Your task to perform on an android device: Go to display settings Image 0: 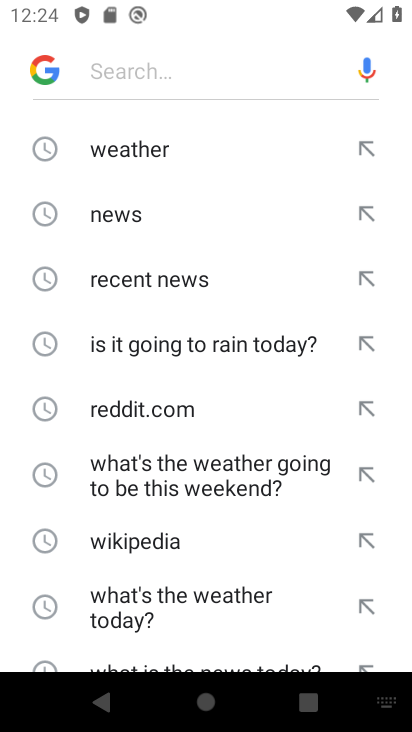
Step 0: press home button
Your task to perform on an android device: Go to display settings Image 1: 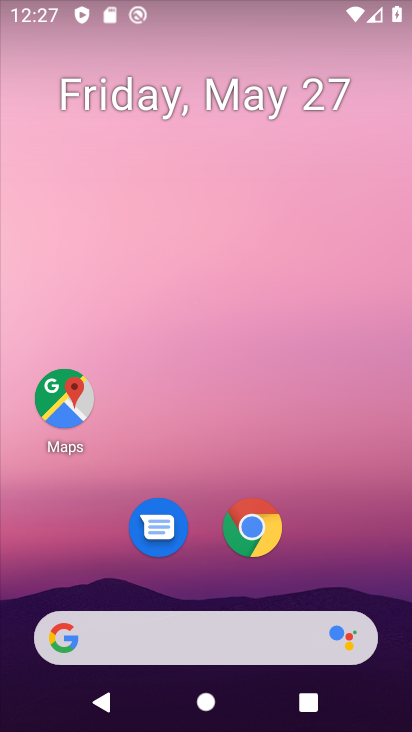
Step 1: drag from (264, 506) to (297, 81)
Your task to perform on an android device: Go to display settings Image 2: 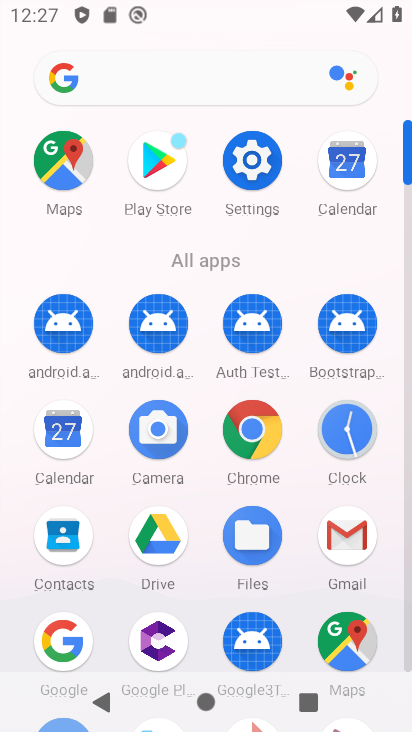
Step 2: click (267, 186)
Your task to perform on an android device: Go to display settings Image 3: 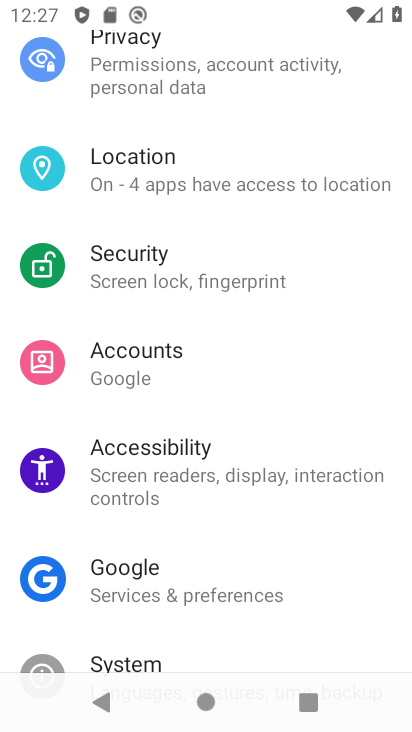
Step 3: drag from (276, 577) to (238, 119)
Your task to perform on an android device: Go to display settings Image 4: 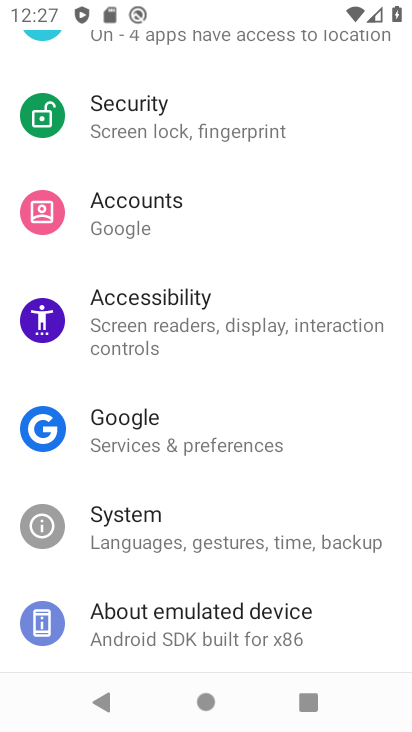
Step 4: drag from (249, 564) to (225, 178)
Your task to perform on an android device: Go to display settings Image 5: 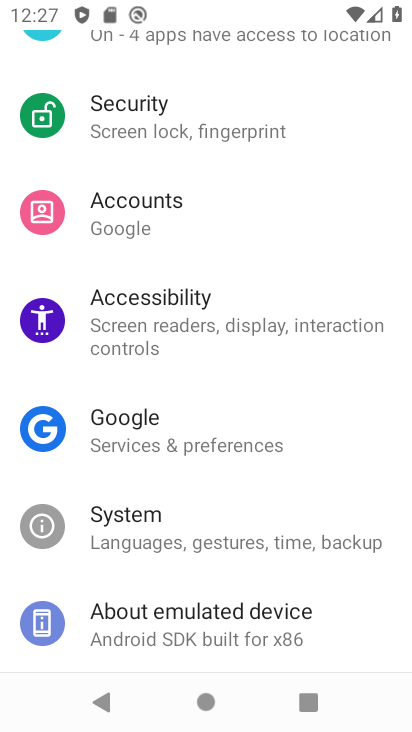
Step 5: drag from (302, 206) to (243, 563)
Your task to perform on an android device: Go to display settings Image 6: 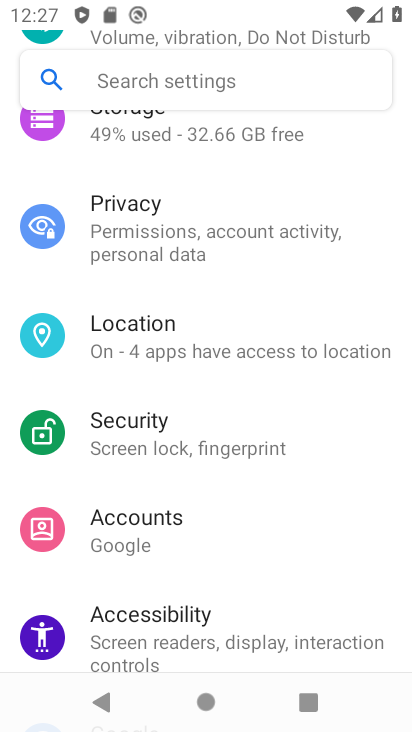
Step 6: drag from (297, 171) to (247, 622)
Your task to perform on an android device: Go to display settings Image 7: 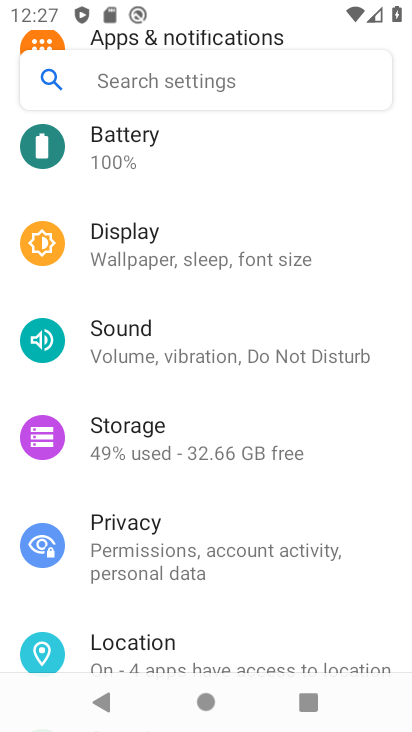
Step 7: drag from (298, 174) to (250, 507)
Your task to perform on an android device: Go to display settings Image 8: 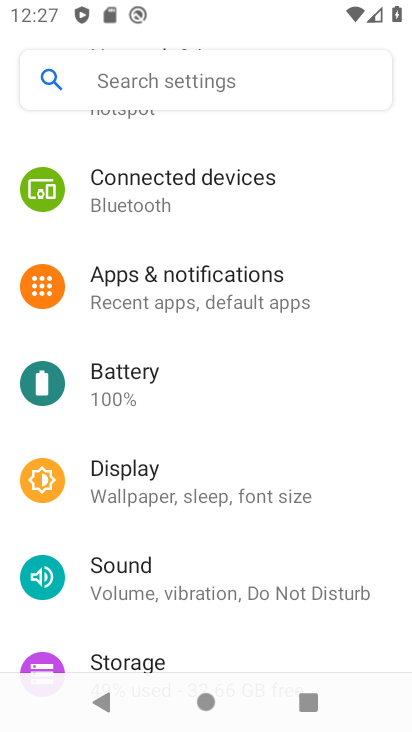
Step 8: click (236, 404)
Your task to perform on an android device: Go to display settings Image 9: 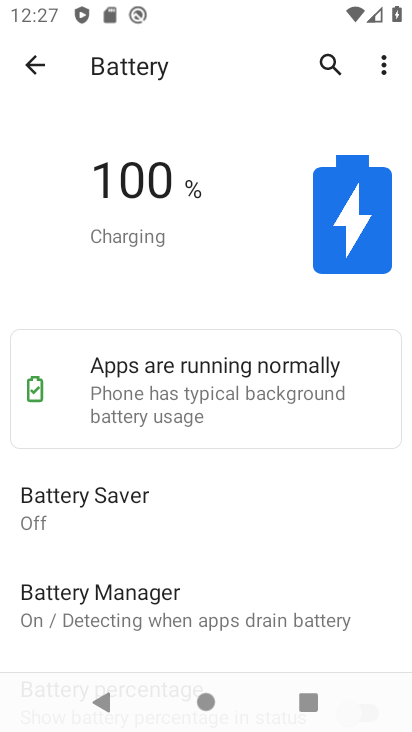
Step 9: press home button
Your task to perform on an android device: Go to display settings Image 10: 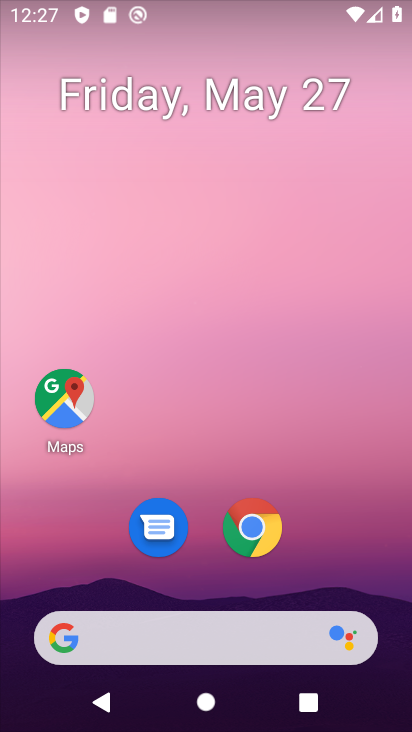
Step 10: drag from (169, 537) to (202, 0)
Your task to perform on an android device: Go to display settings Image 11: 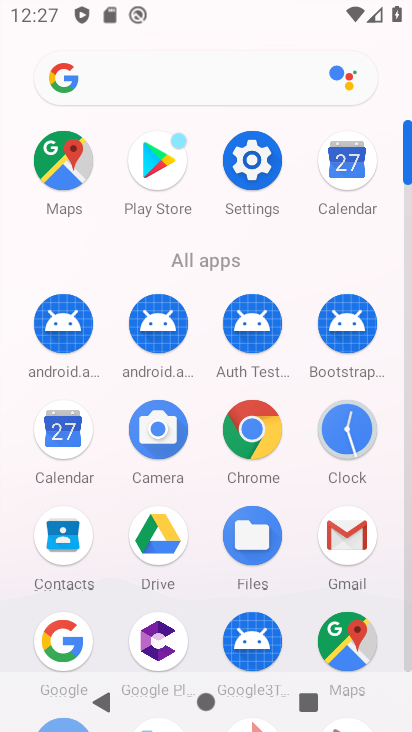
Step 11: click (241, 155)
Your task to perform on an android device: Go to display settings Image 12: 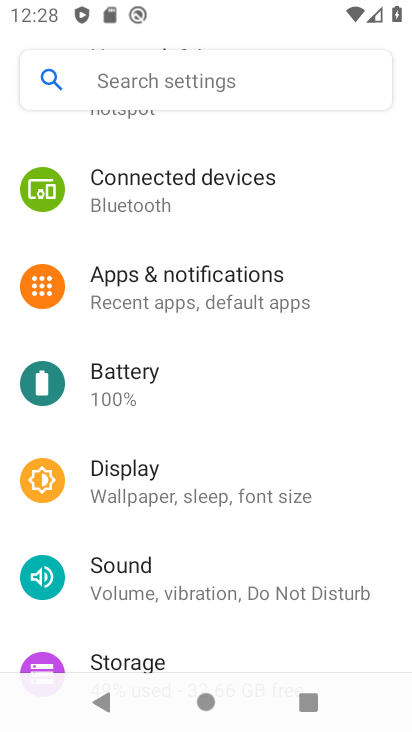
Step 12: click (152, 481)
Your task to perform on an android device: Go to display settings Image 13: 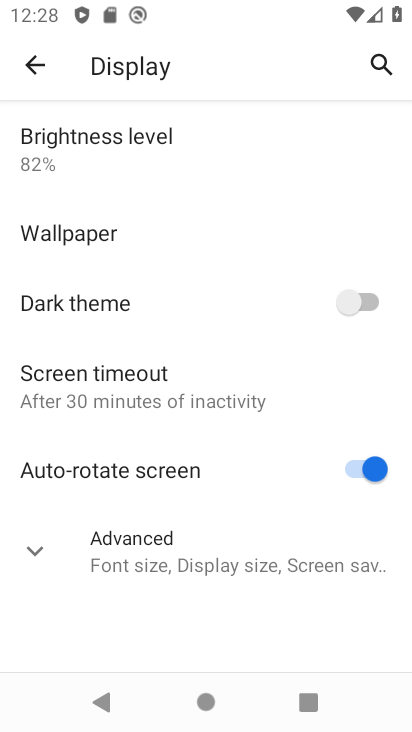
Step 13: task complete